Your task to perform on an android device: move a message to another label in the gmail app Image 0: 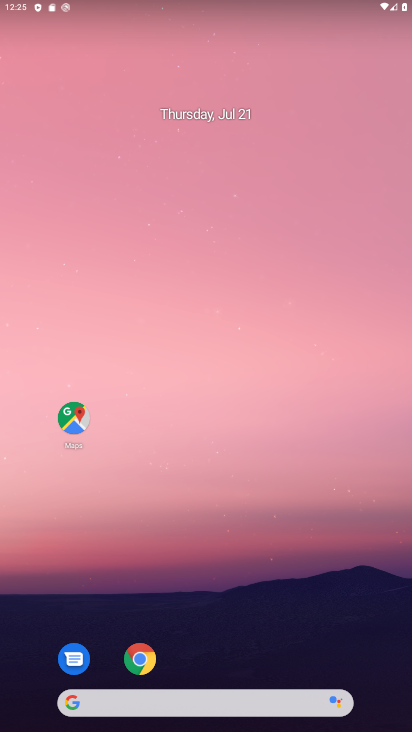
Step 0: drag from (194, 699) to (218, 216)
Your task to perform on an android device: move a message to another label in the gmail app Image 1: 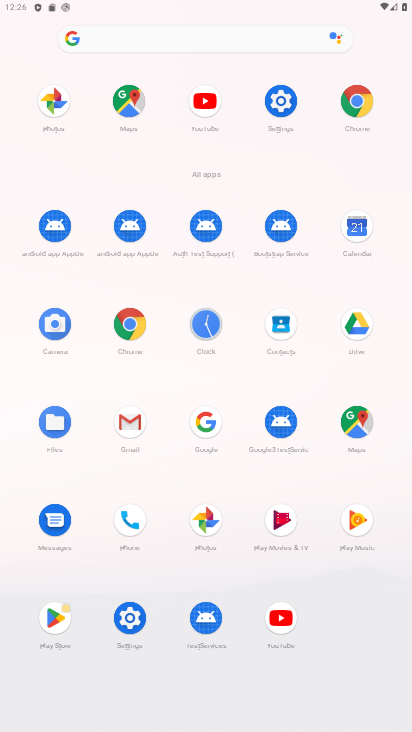
Step 1: click (130, 422)
Your task to perform on an android device: move a message to another label in the gmail app Image 2: 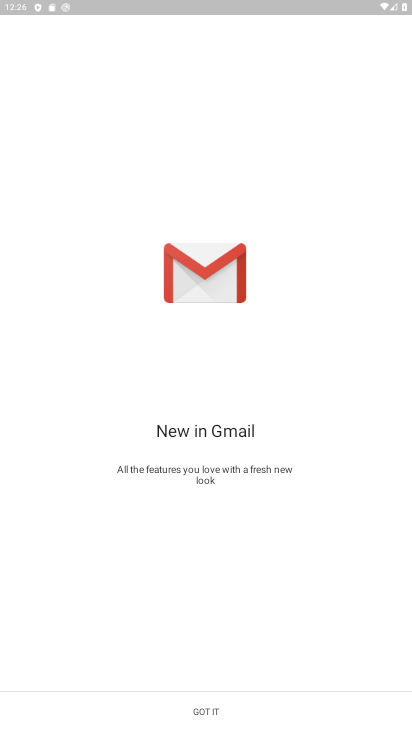
Step 2: click (204, 710)
Your task to perform on an android device: move a message to another label in the gmail app Image 3: 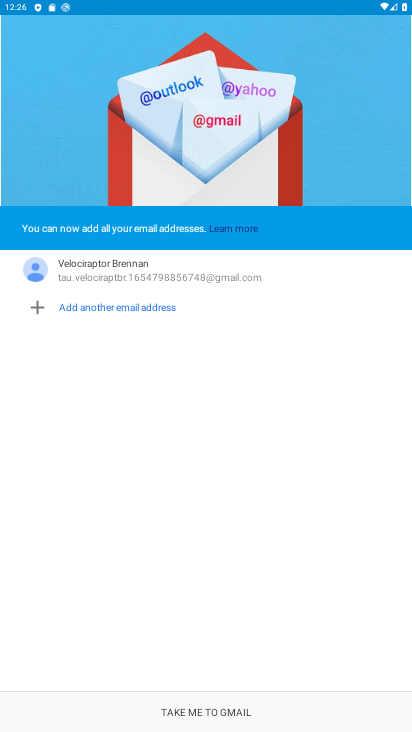
Step 3: click (204, 710)
Your task to perform on an android device: move a message to another label in the gmail app Image 4: 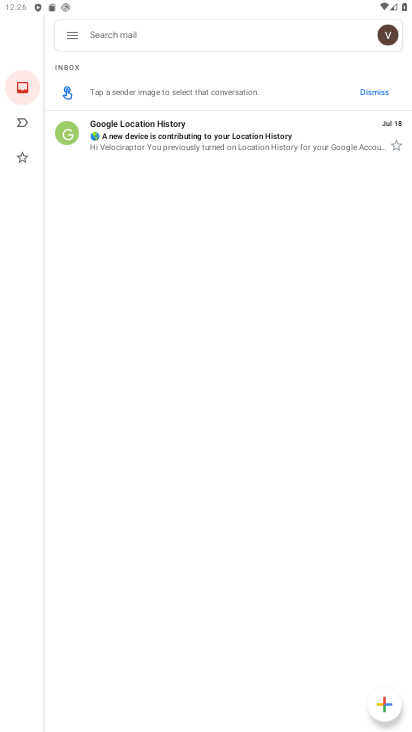
Step 4: click (261, 147)
Your task to perform on an android device: move a message to another label in the gmail app Image 5: 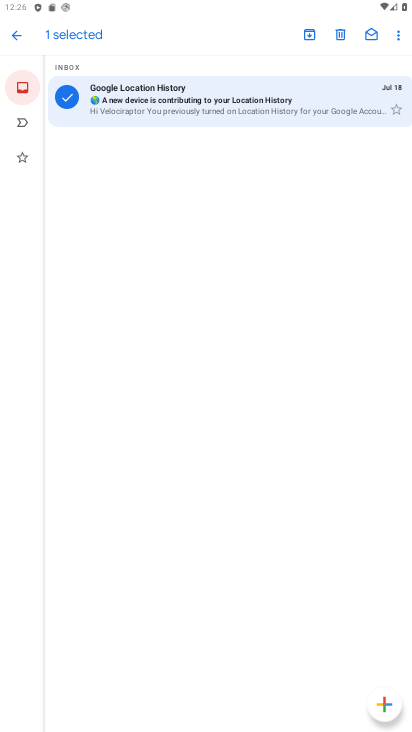
Step 5: click (401, 36)
Your task to perform on an android device: move a message to another label in the gmail app Image 6: 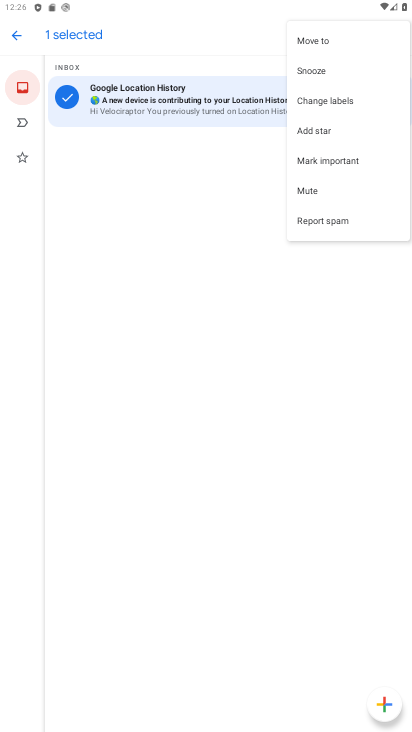
Step 6: click (320, 108)
Your task to perform on an android device: move a message to another label in the gmail app Image 7: 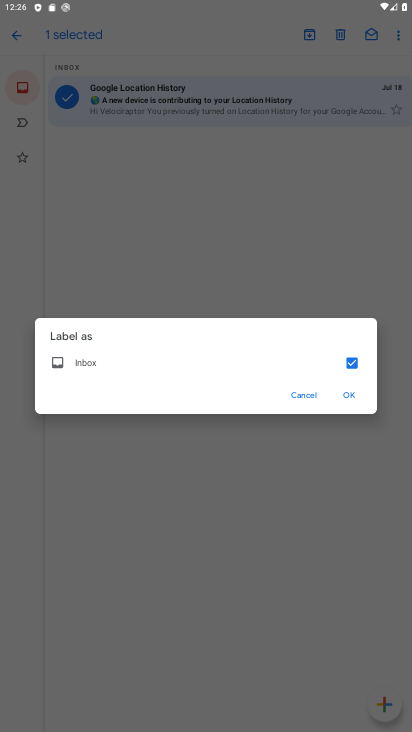
Step 7: click (353, 367)
Your task to perform on an android device: move a message to another label in the gmail app Image 8: 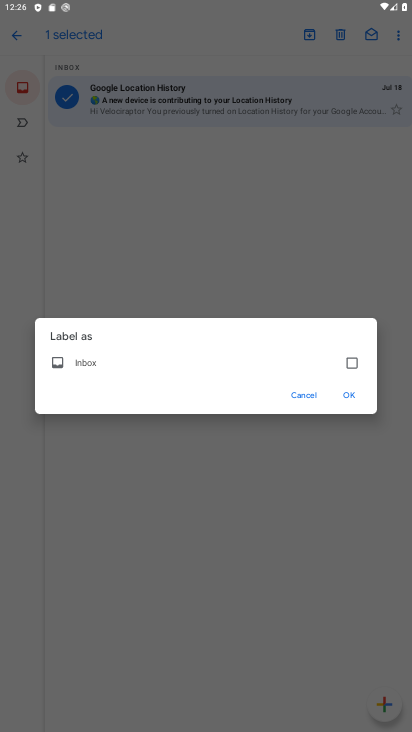
Step 8: click (356, 395)
Your task to perform on an android device: move a message to another label in the gmail app Image 9: 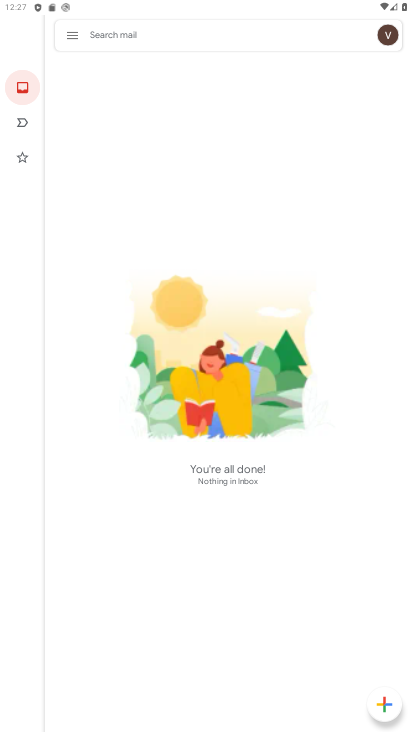
Step 9: task complete